Your task to perform on an android device: Go to battery settings Image 0: 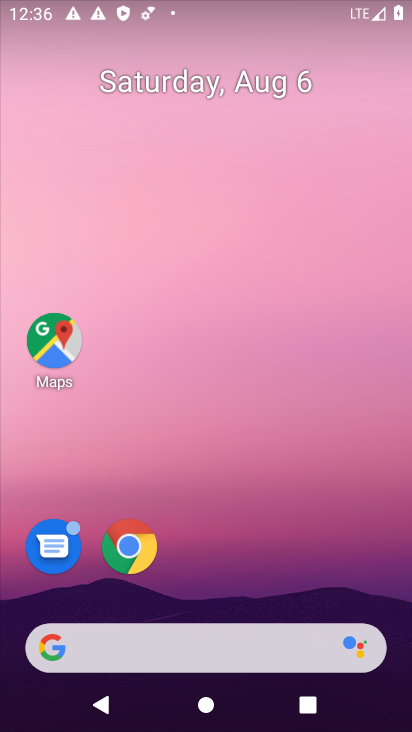
Step 0: drag from (371, 590) to (382, 58)
Your task to perform on an android device: Go to battery settings Image 1: 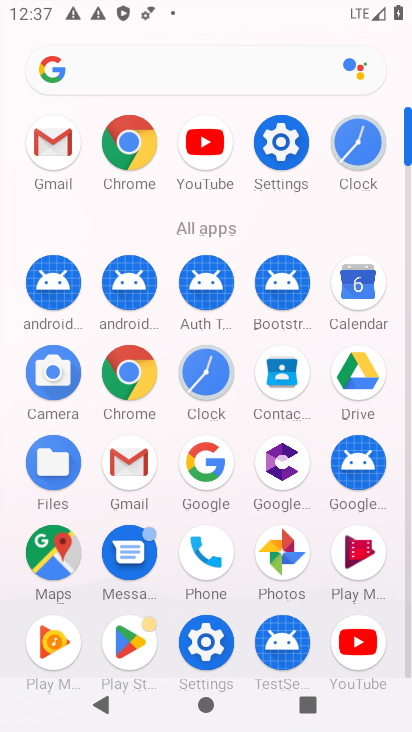
Step 1: click (205, 642)
Your task to perform on an android device: Go to battery settings Image 2: 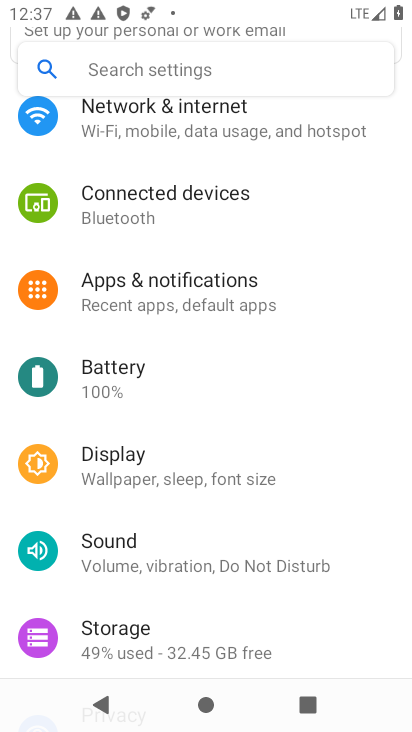
Step 2: click (131, 371)
Your task to perform on an android device: Go to battery settings Image 3: 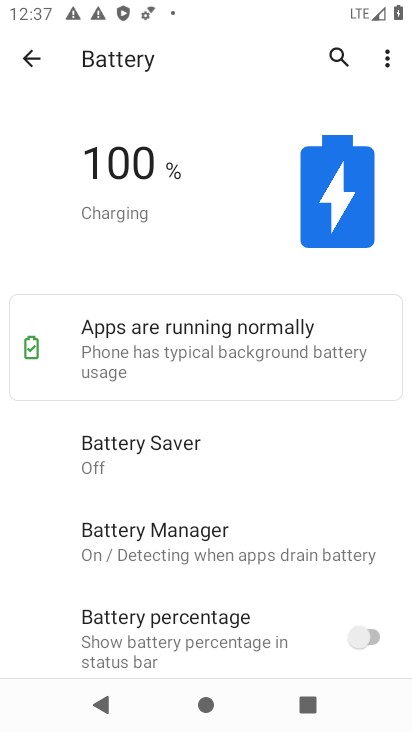
Step 3: task complete